Your task to perform on an android device: toggle pop-ups in chrome Image 0: 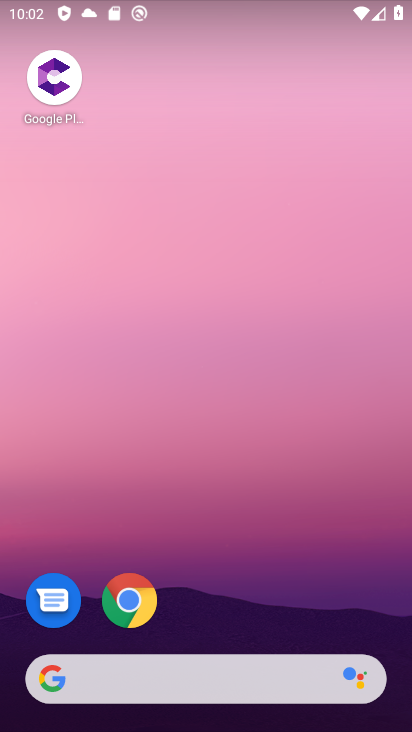
Step 0: drag from (212, 510) to (145, 7)
Your task to perform on an android device: toggle pop-ups in chrome Image 1: 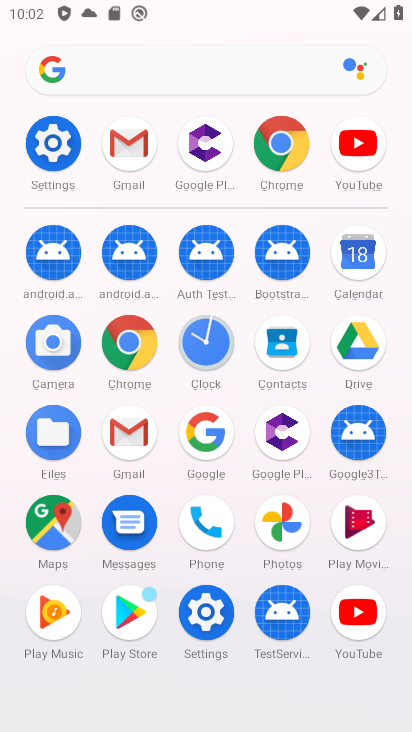
Step 1: click (285, 154)
Your task to perform on an android device: toggle pop-ups in chrome Image 2: 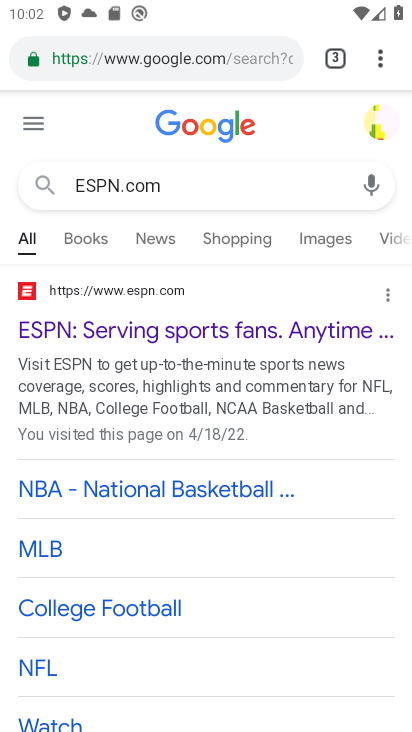
Step 2: click (381, 61)
Your task to perform on an android device: toggle pop-ups in chrome Image 3: 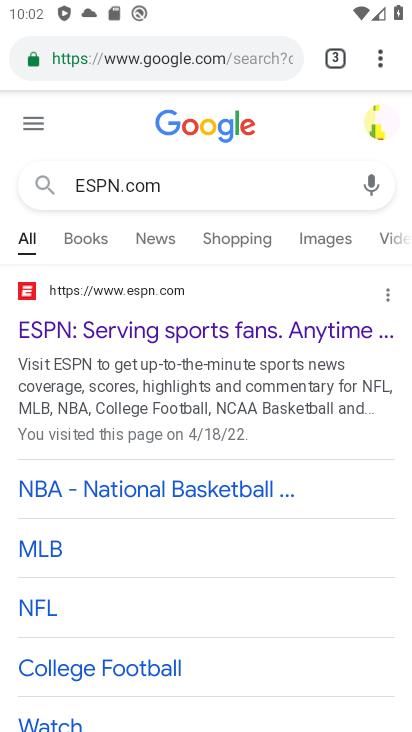
Step 3: click (376, 54)
Your task to perform on an android device: toggle pop-ups in chrome Image 4: 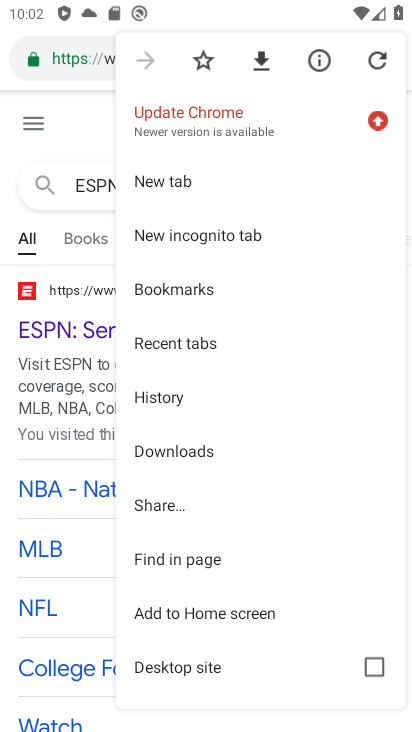
Step 4: drag from (217, 594) to (227, 220)
Your task to perform on an android device: toggle pop-ups in chrome Image 5: 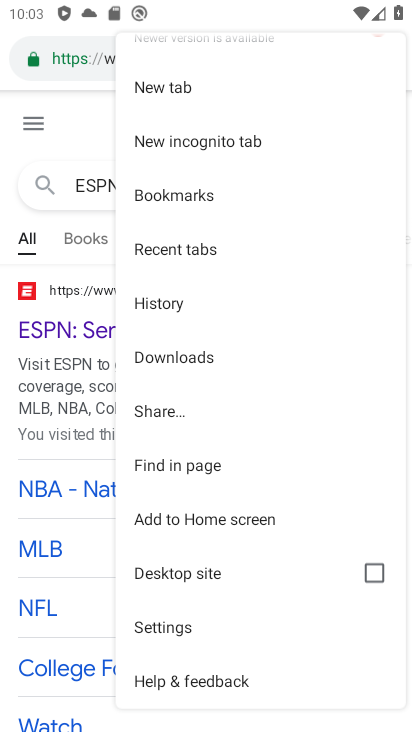
Step 5: click (167, 628)
Your task to perform on an android device: toggle pop-ups in chrome Image 6: 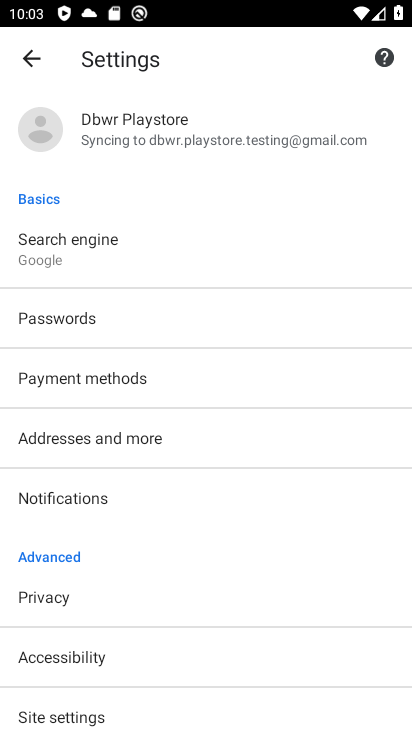
Step 6: click (85, 713)
Your task to perform on an android device: toggle pop-ups in chrome Image 7: 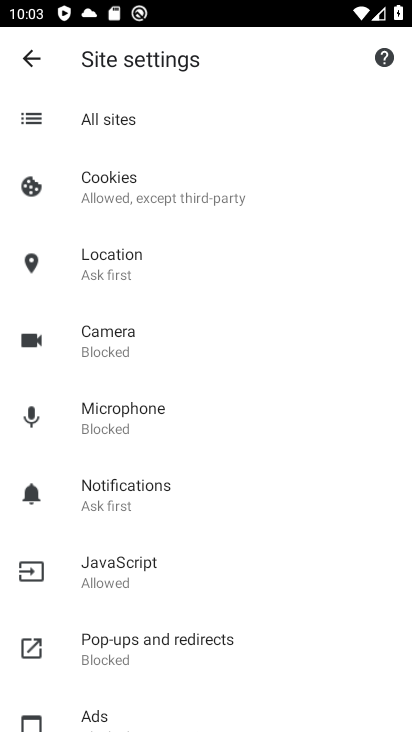
Step 7: click (114, 639)
Your task to perform on an android device: toggle pop-ups in chrome Image 8: 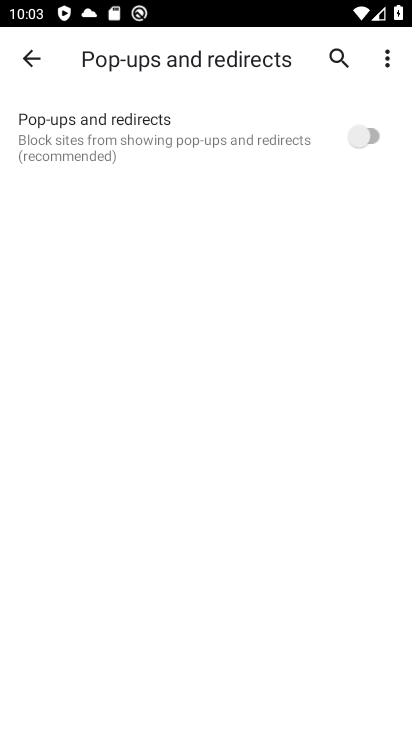
Step 8: click (358, 134)
Your task to perform on an android device: toggle pop-ups in chrome Image 9: 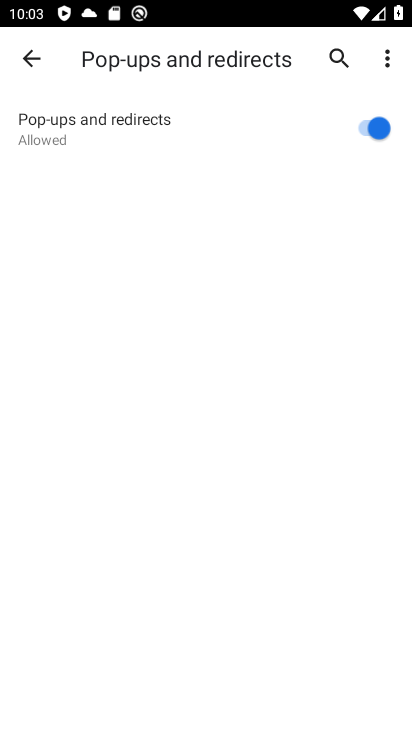
Step 9: task complete